Your task to perform on an android device: snooze an email in the gmail app Image 0: 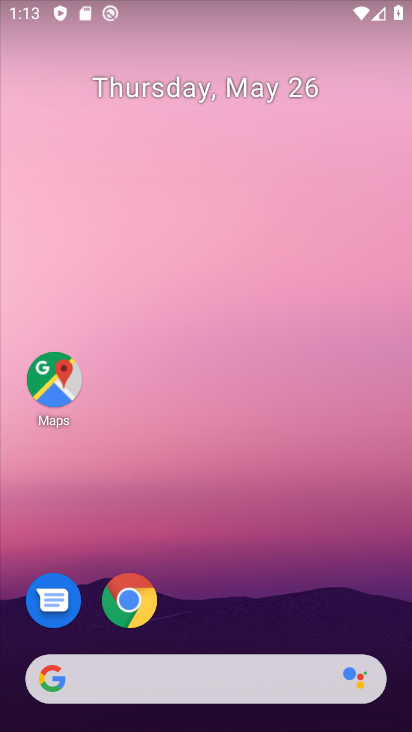
Step 0: drag from (250, 601) to (304, 95)
Your task to perform on an android device: snooze an email in the gmail app Image 1: 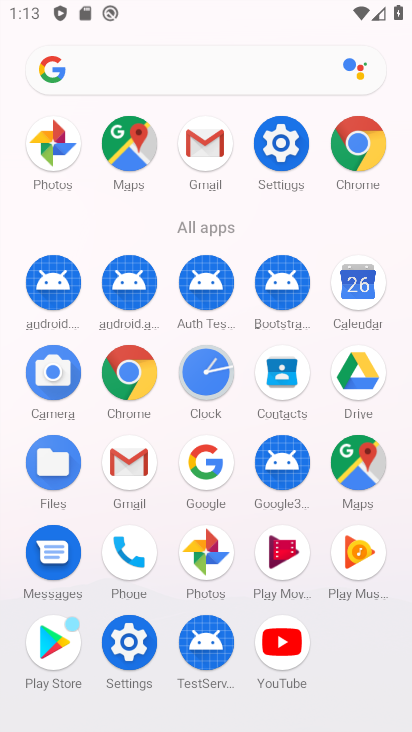
Step 1: click (205, 141)
Your task to perform on an android device: snooze an email in the gmail app Image 2: 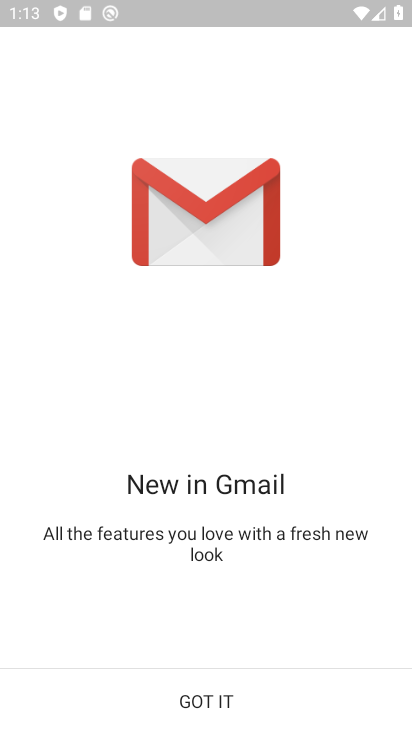
Step 2: click (210, 700)
Your task to perform on an android device: snooze an email in the gmail app Image 3: 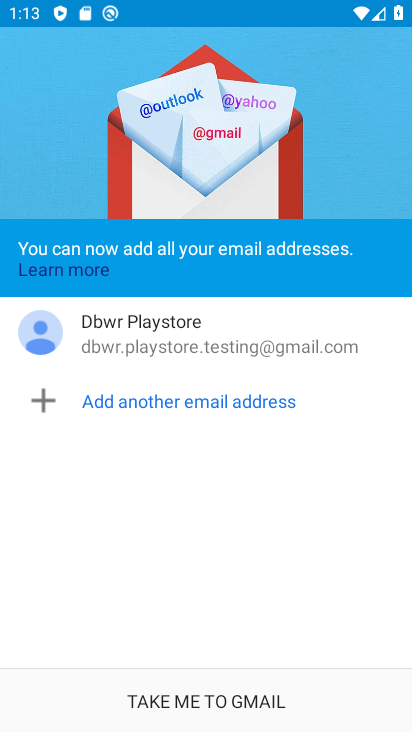
Step 3: click (210, 700)
Your task to perform on an android device: snooze an email in the gmail app Image 4: 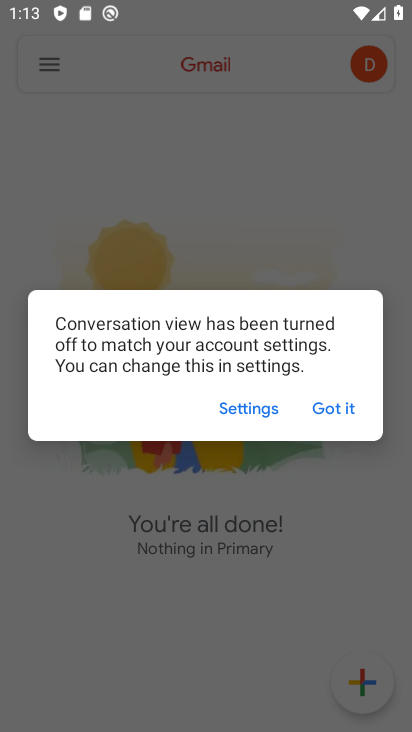
Step 4: click (330, 413)
Your task to perform on an android device: snooze an email in the gmail app Image 5: 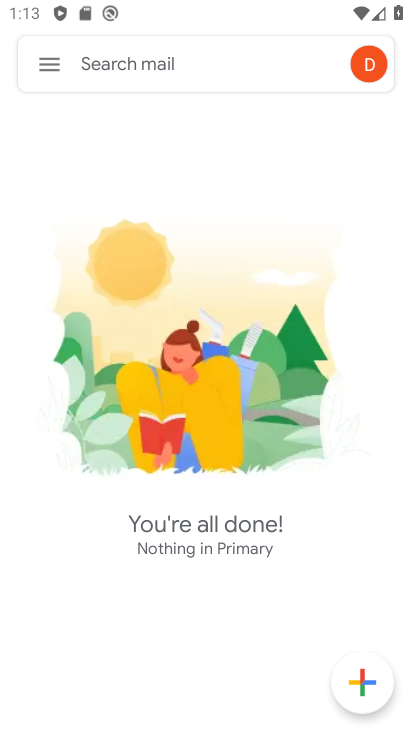
Step 5: click (55, 61)
Your task to perform on an android device: snooze an email in the gmail app Image 6: 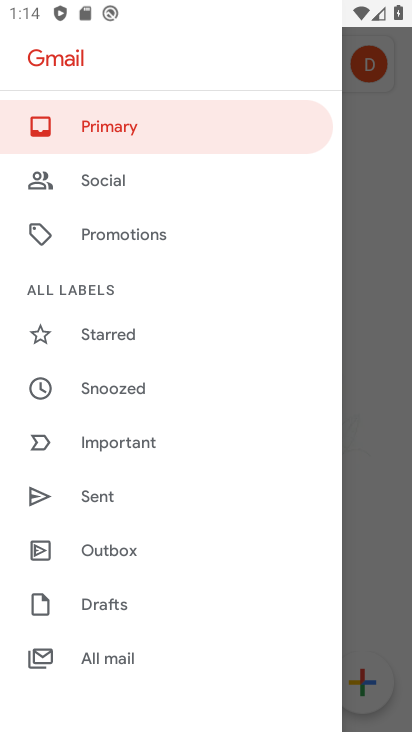
Step 6: click (134, 386)
Your task to perform on an android device: snooze an email in the gmail app Image 7: 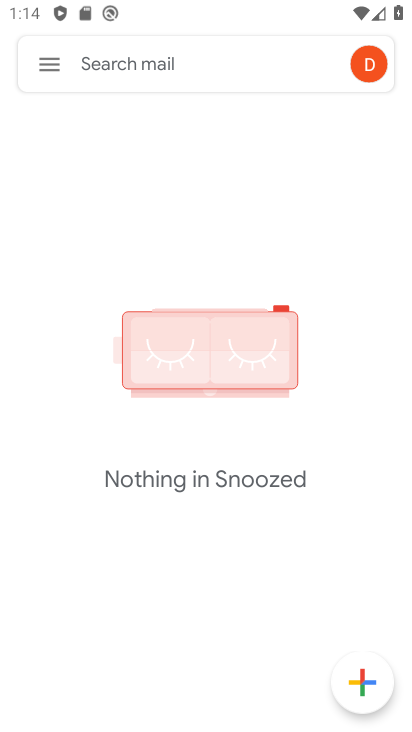
Step 7: click (63, 60)
Your task to perform on an android device: snooze an email in the gmail app Image 8: 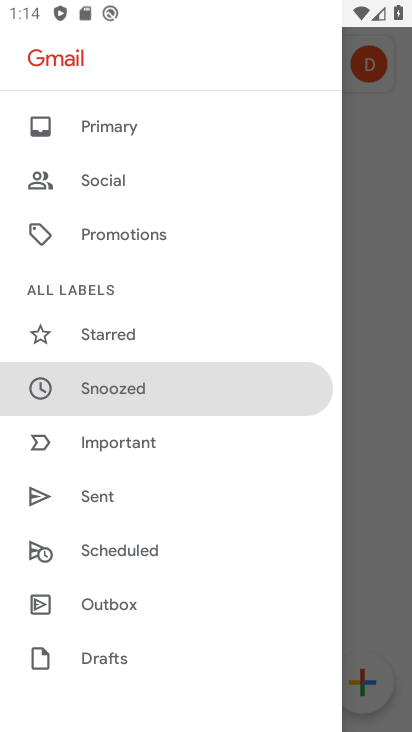
Step 8: drag from (118, 475) to (162, 389)
Your task to perform on an android device: snooze an email in the gmail app Image 9: 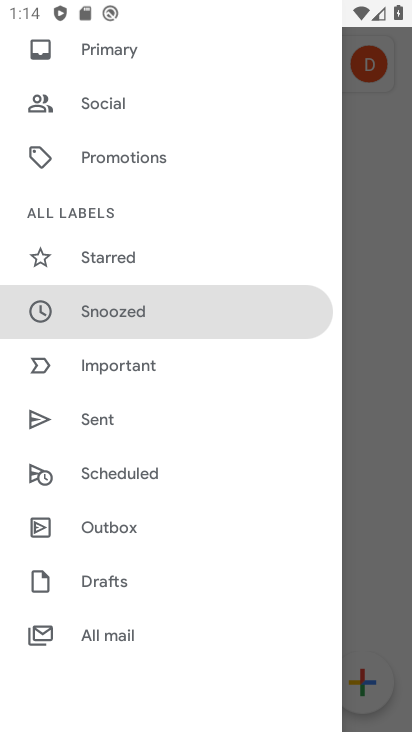
Step 9: click (109, 625)
Your task to perform on an android device: snooze an email in the gmail app Image 10: 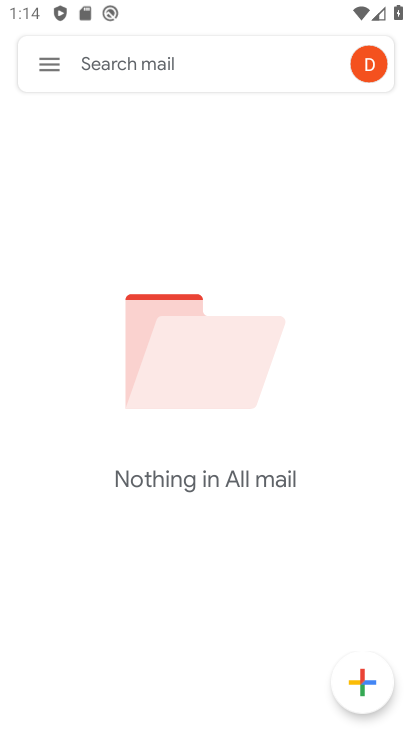
Step 10: task complete